Your task to perform on an android device: Empty the shopping cart on ebay.com. Add "jbl flip 4" to the cart on ebay.com, then select checkout. Image 0: 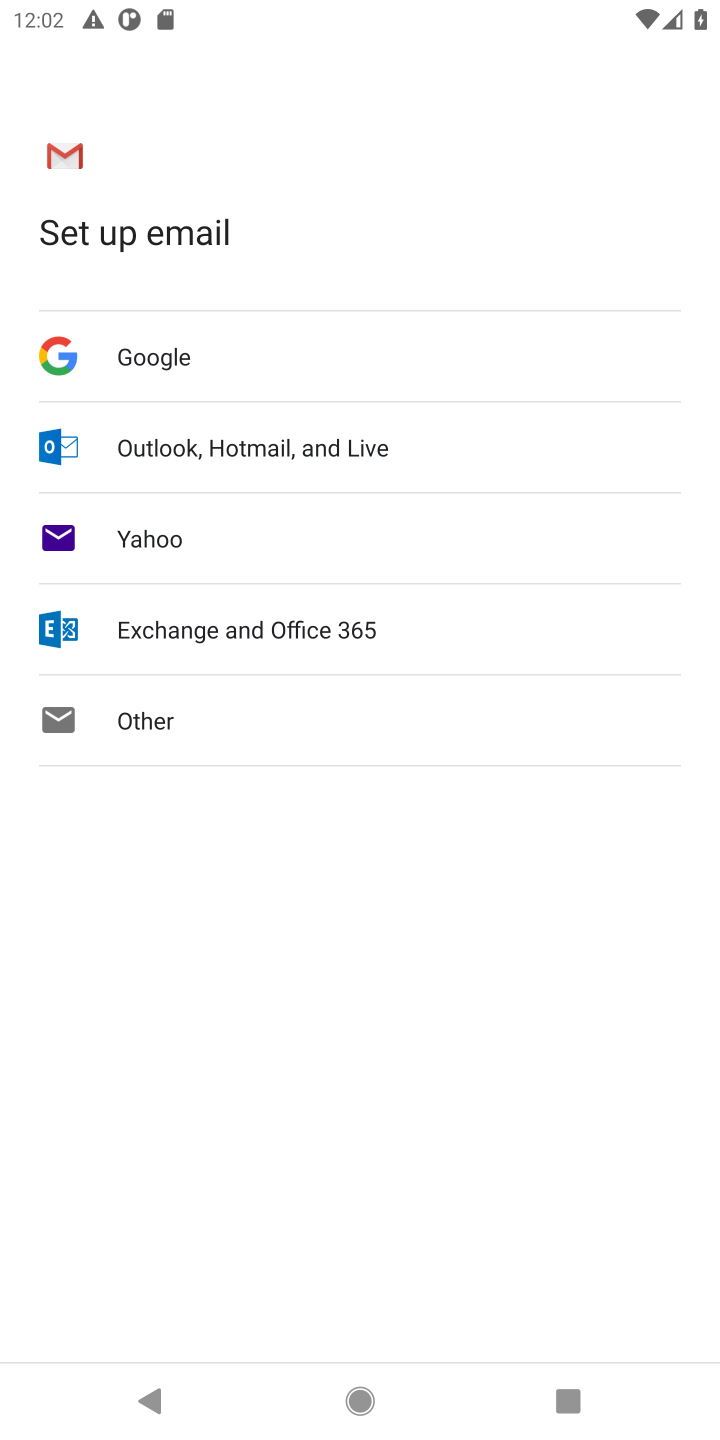
Step 0: press home button
Your task to perform on an android device: Empty the shopping cart on ebay.com. Add "jbl flip 4" to the cart on ebay.com, then select checkout. Image 1: 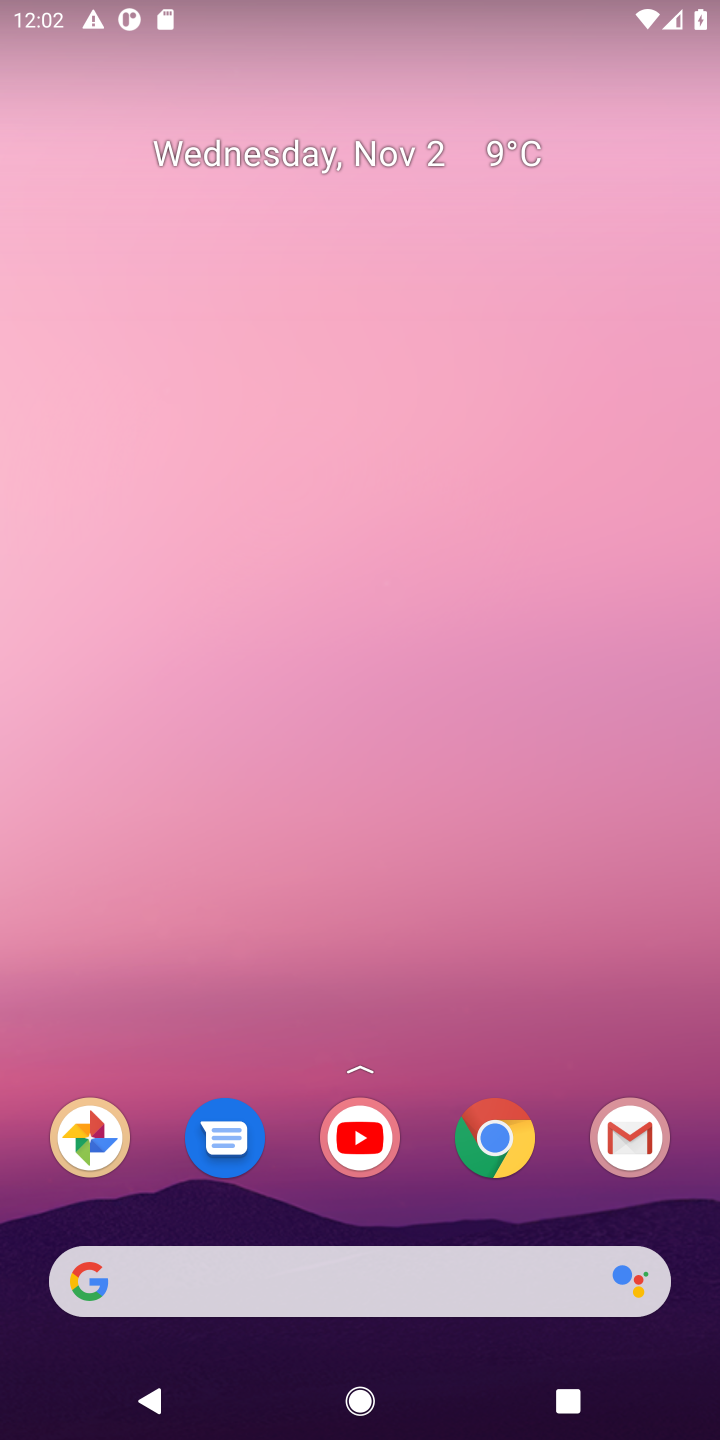
Step 1: click (315, 1275)
Your task to perform on an android device: Empty the shopping cart on ebay.com. Add "jbl flip 4" to the cart on ebay.com, then select checkout. Image 2: 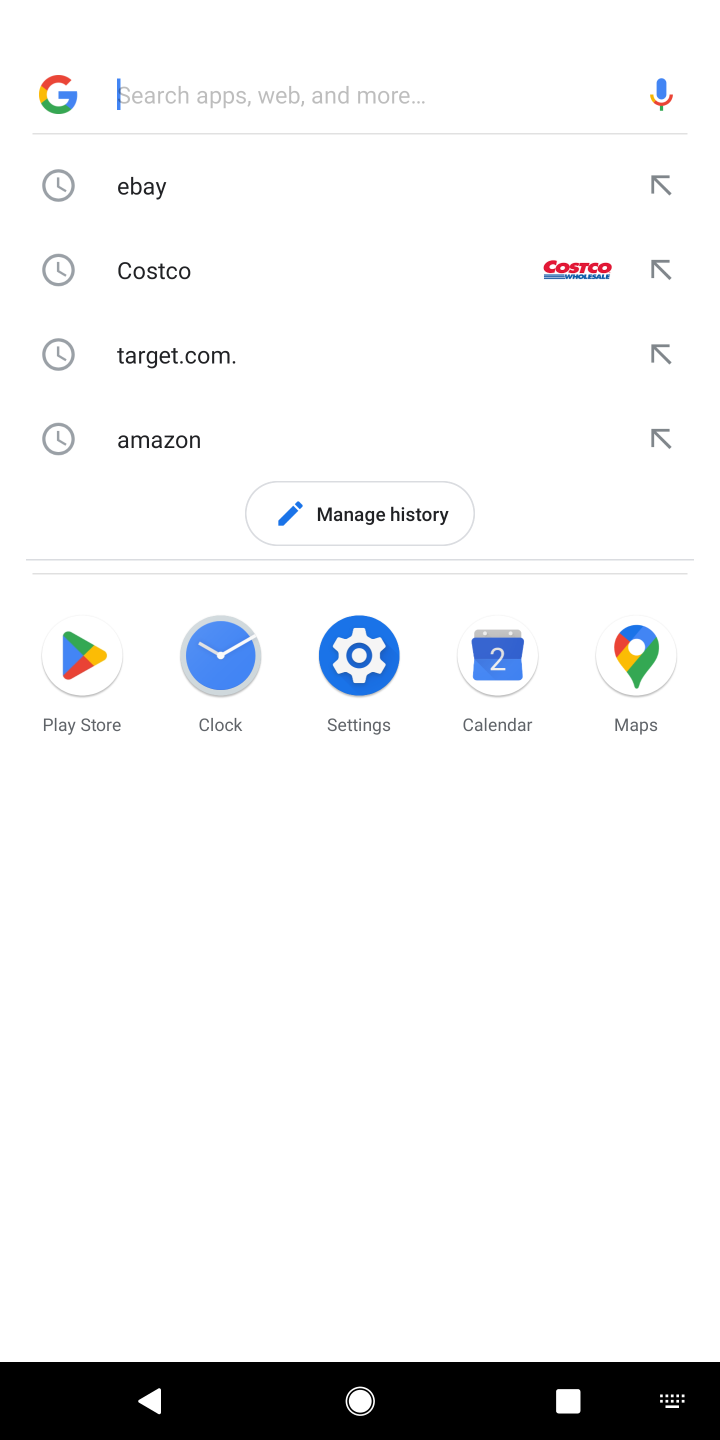
Step 2: click (143, 196)
Your task to perform on an android device: Empty the shopping cart on ebay.com. Add "jbl flip 4" to the cart on ebay.com, then select checkout. Image 3: 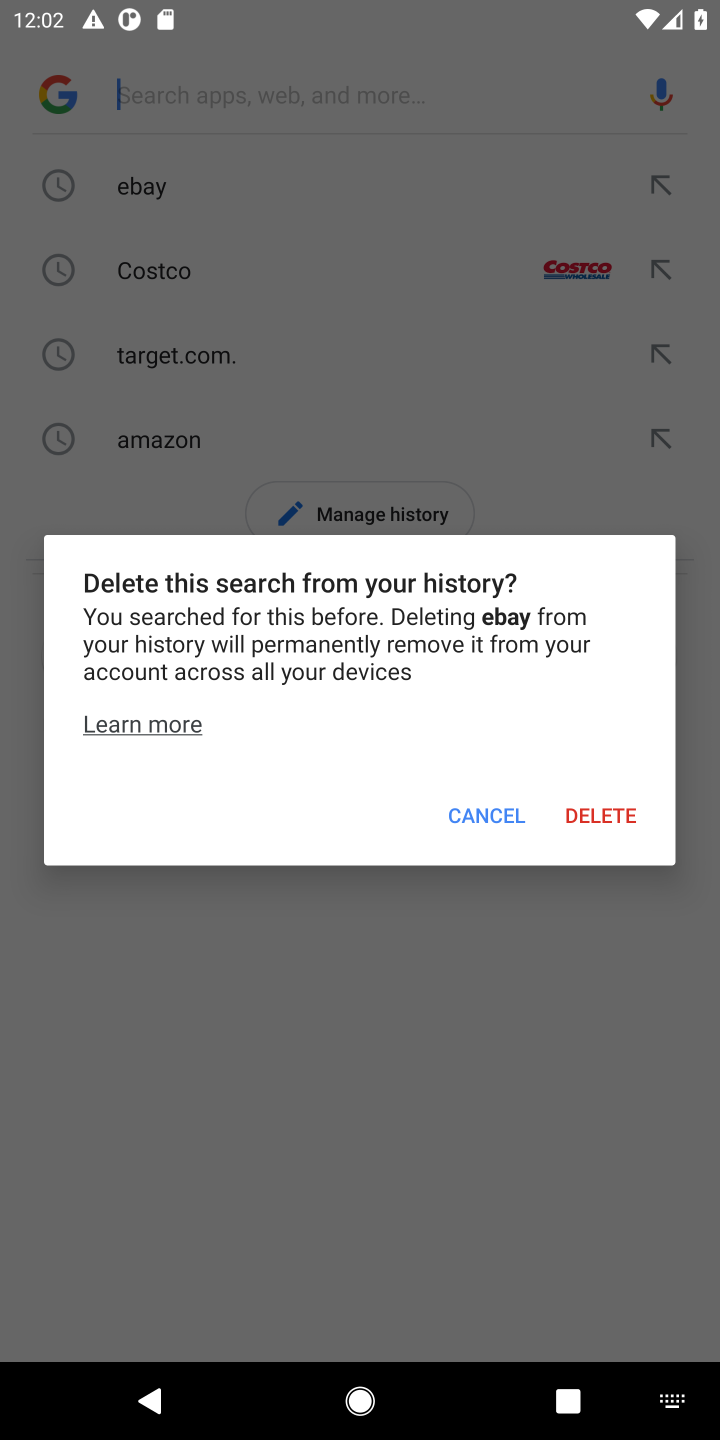
Step 3: click (476, 812)
Your task to perform on an android device: Empty the shopping cart on ebay.com. Add "jbl flip 4" to the cart on ebay.com, then select checkout. Image 4: 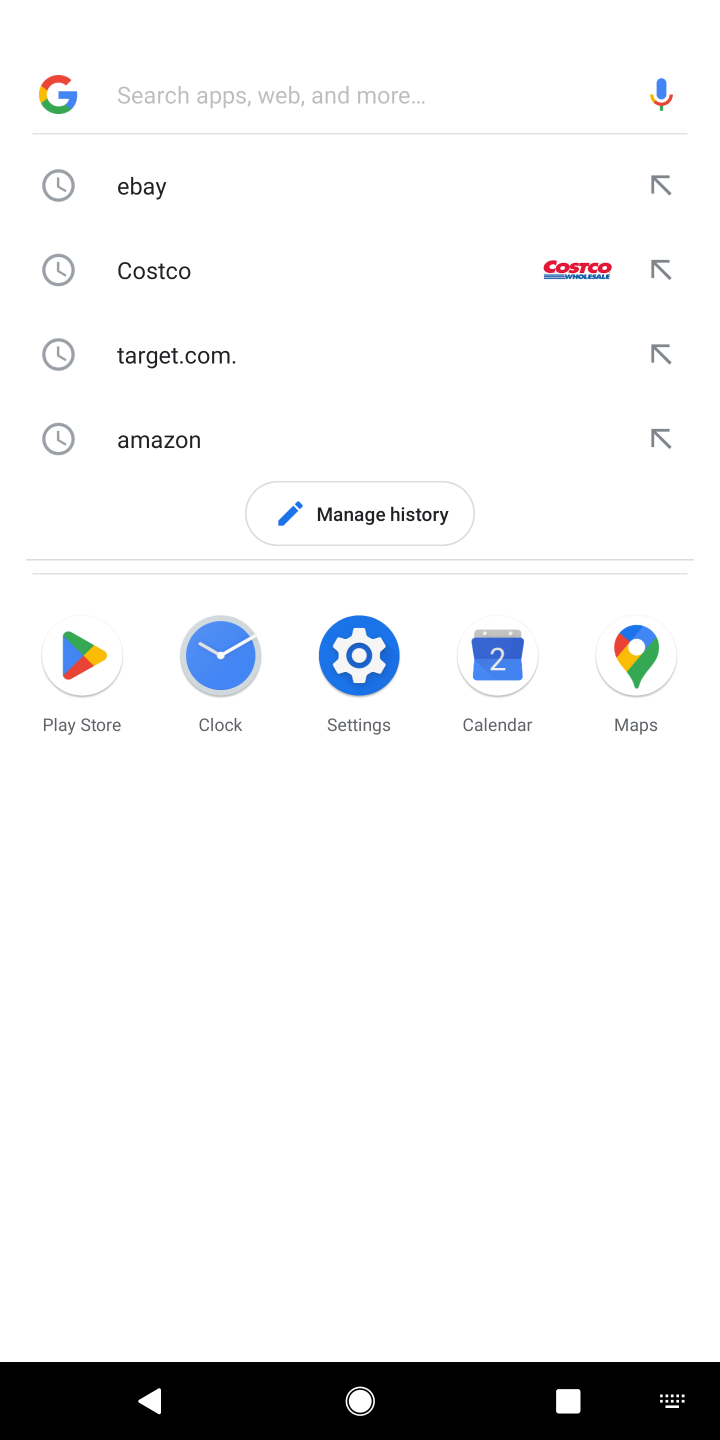
Step 4: click (141, 190)
Your task to perform on an android device: Empty the shopping cart on ebay.com. Add "jbl flip 4" to the cart on ebay.com, then select checkout. Image 5: 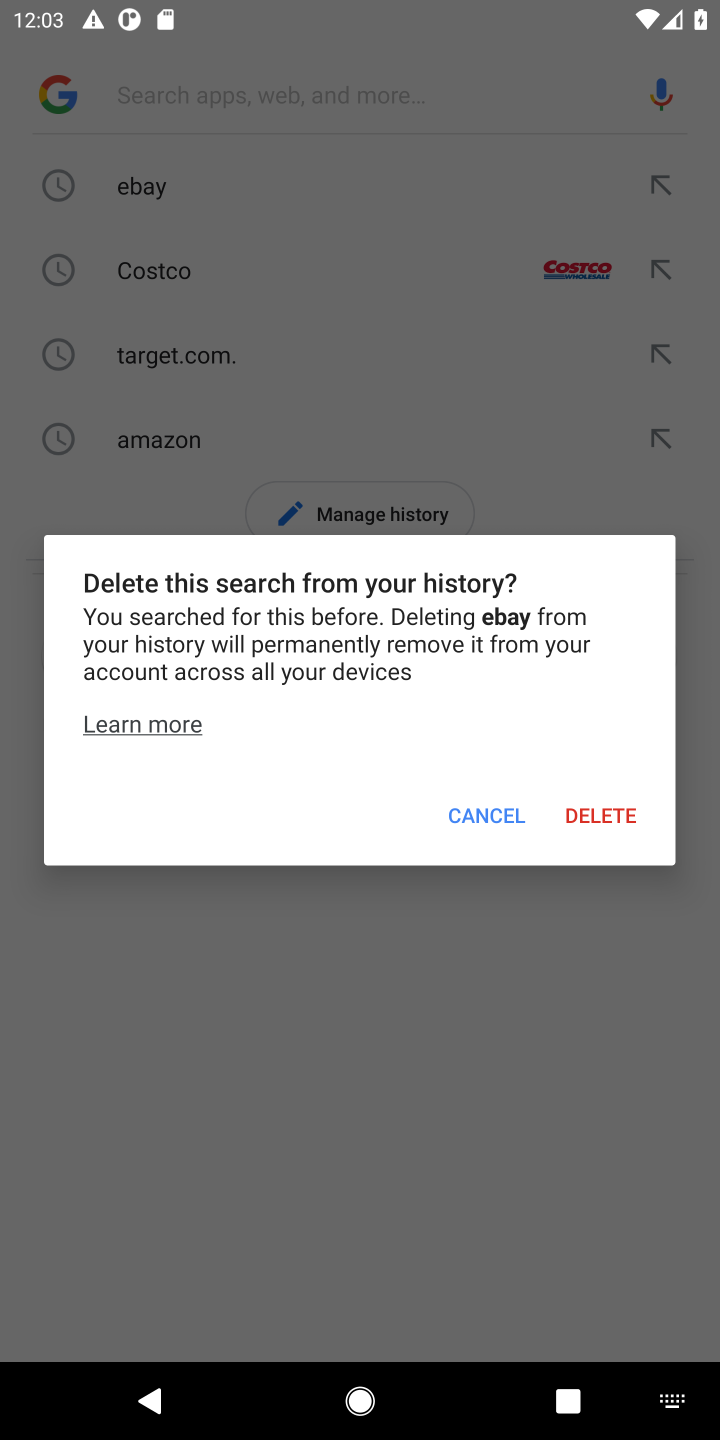
Step 5: click (482, 820)
Your task to perform on an android device: Empty the shopping cart on ebay.com. Add "jbl flip 4" to the cart on ebay.com, then select checkout. Image 6: 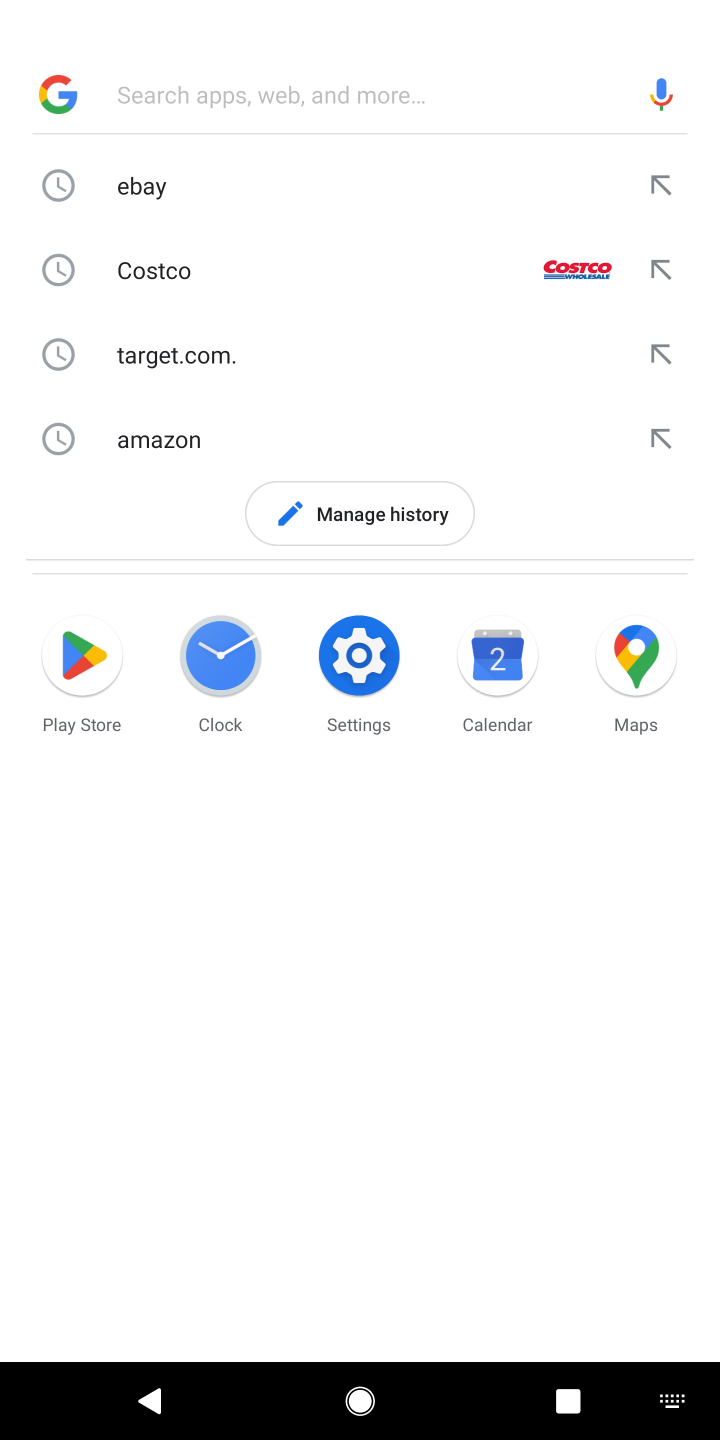
Step 6: click (170, 195)
Your task to perform on an android device: Empty the shopping cart on ebay.com. Add "jbl flip 4" to the cart on ebay.com, then select checkout. Image 7: 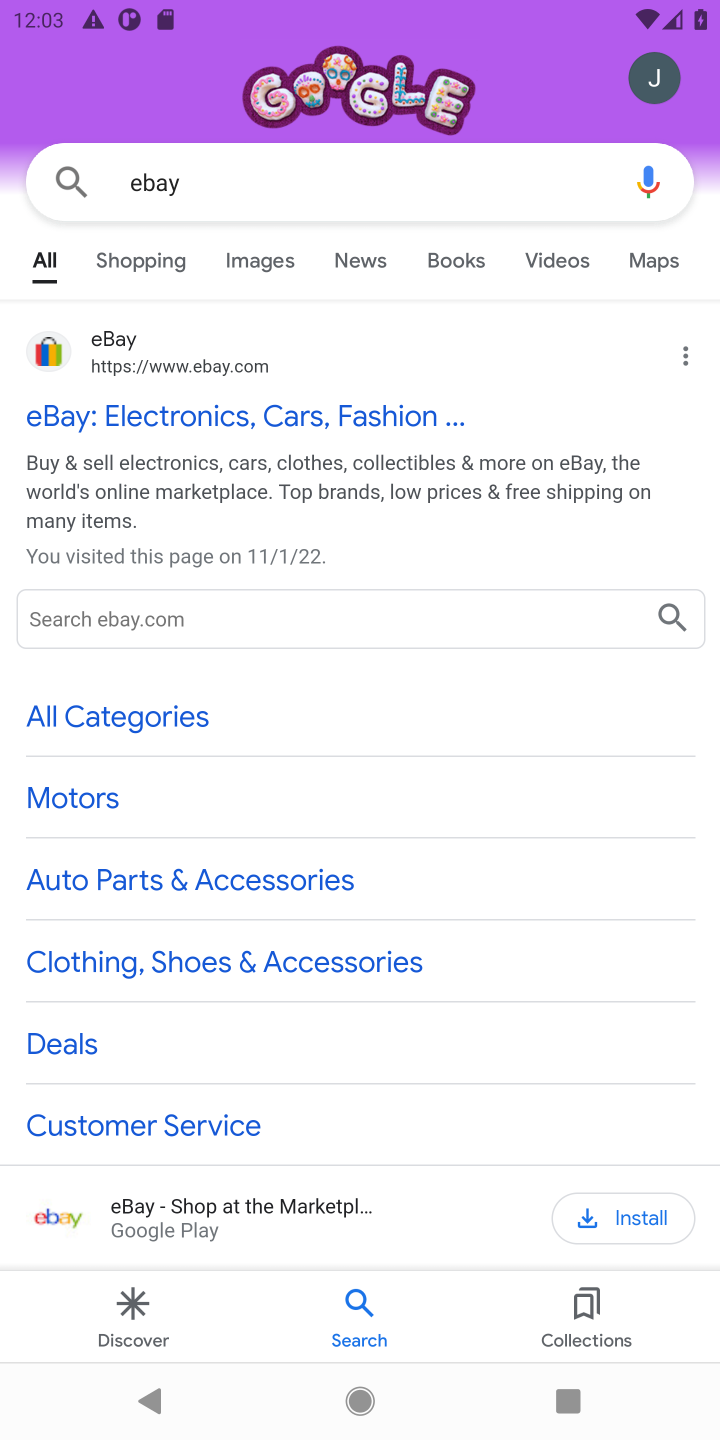
Step 7: click (103, 341)
Your task to perform on an android device: Empty the shopping cart on ebay.com. Add "jbl flip 4" to the cart on ebay.com, then select checkout. Image 8: 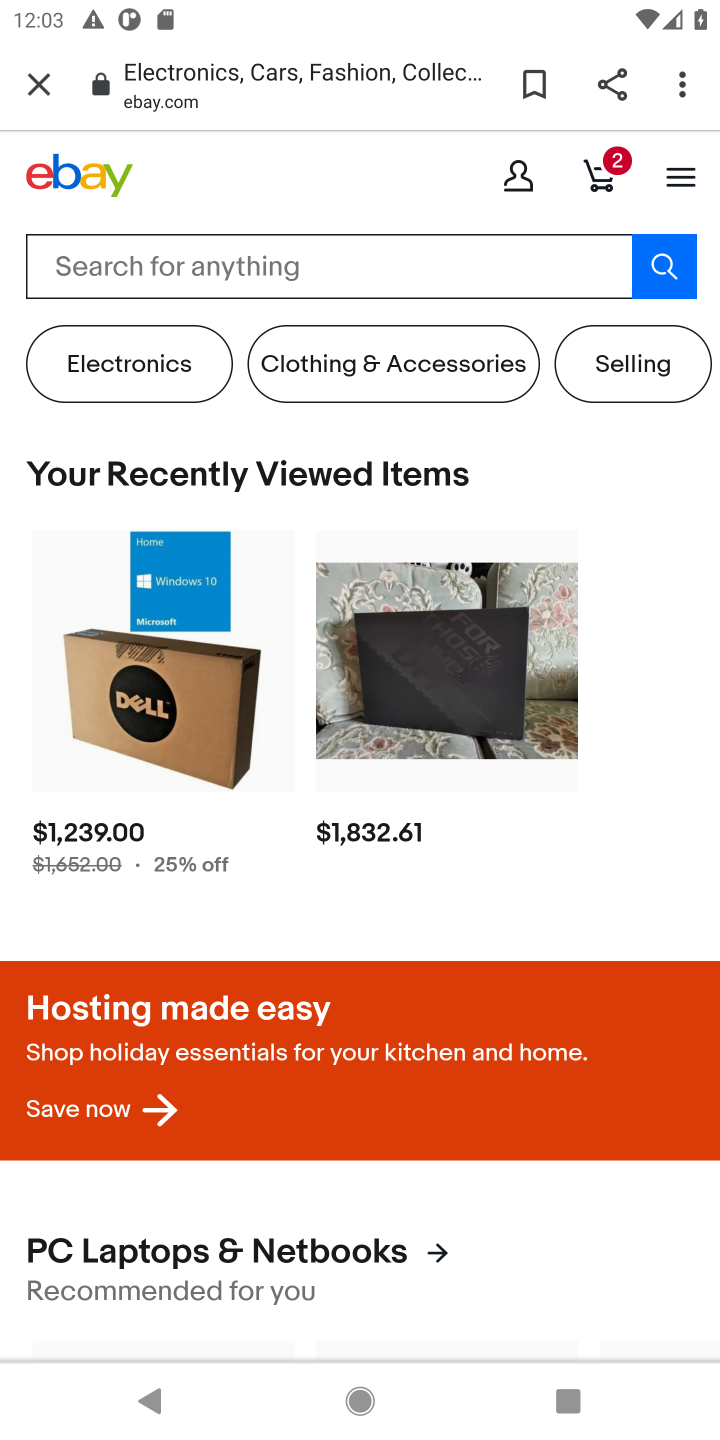
Step 8: click (266, 259)
Your task to perform on an android device: Empty the shopping cart on ebay.com. Add "jbl flip 4" to the cart on ebay.com, then select checkout. Image 9: 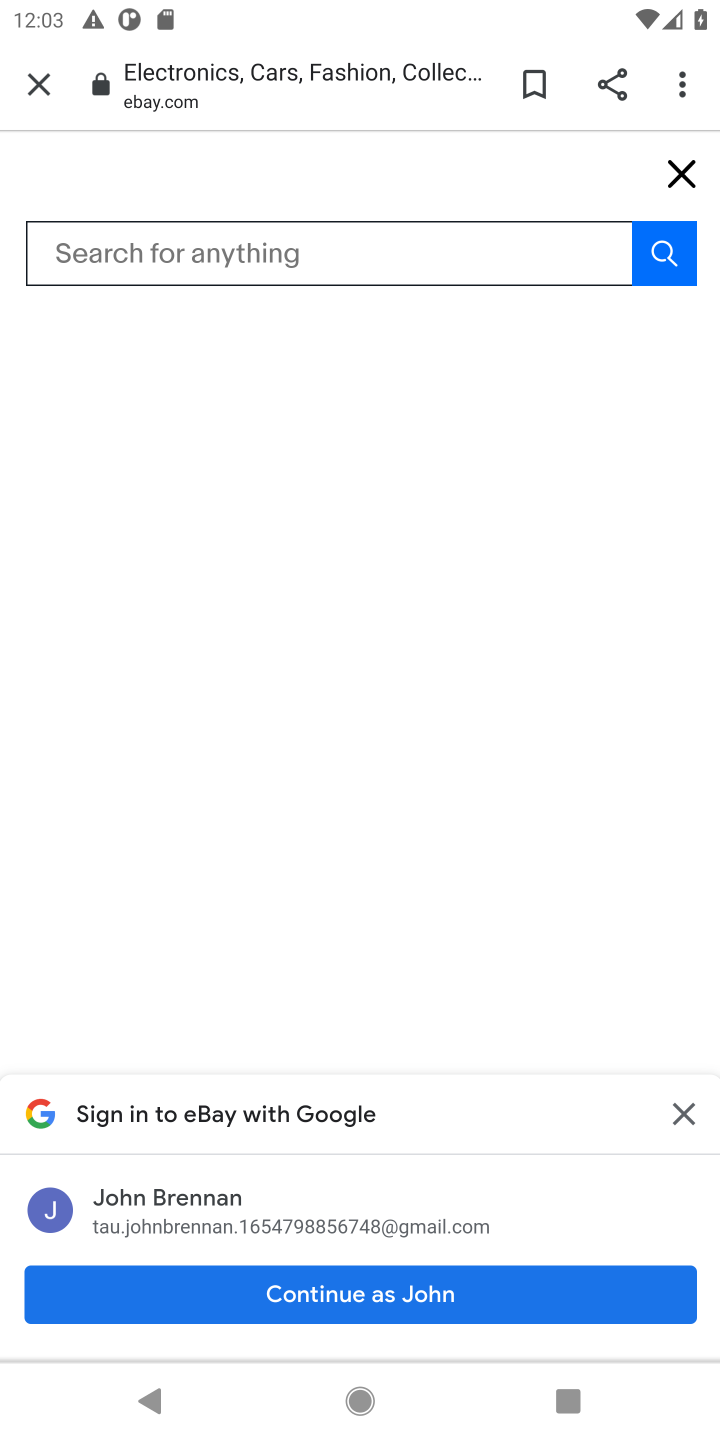
Step 9: click (329, 259)
Your task to perform on an android device: Empty the shopping cart on ebay.com. Add "jbl flip 4" to the cart on ebay.com, then select checkout. Image 10: 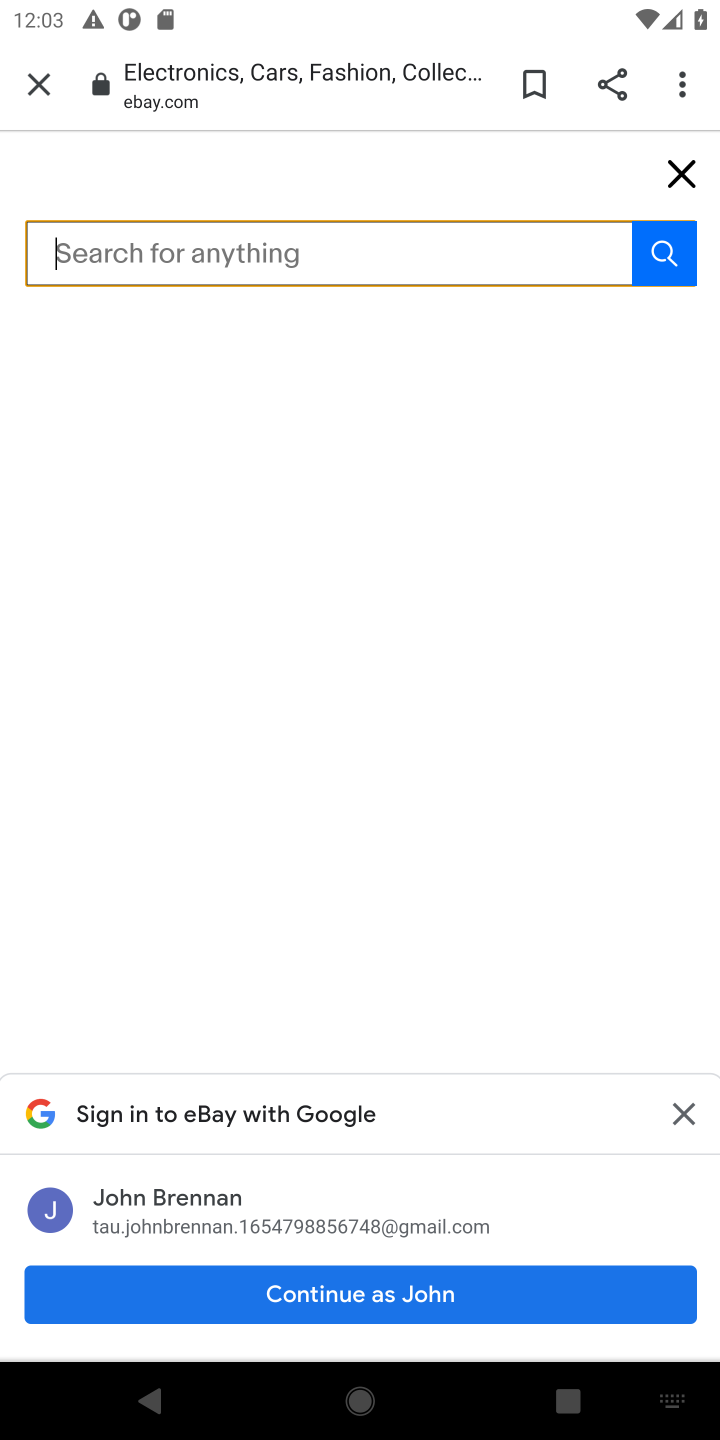
Step 10: click (480, 1305)
Your task to perform on an android device: Empty the shopping cart on ebay.com. Add "jbl flip 4" to the cart on ebay.com, then select checkout. Image 11: 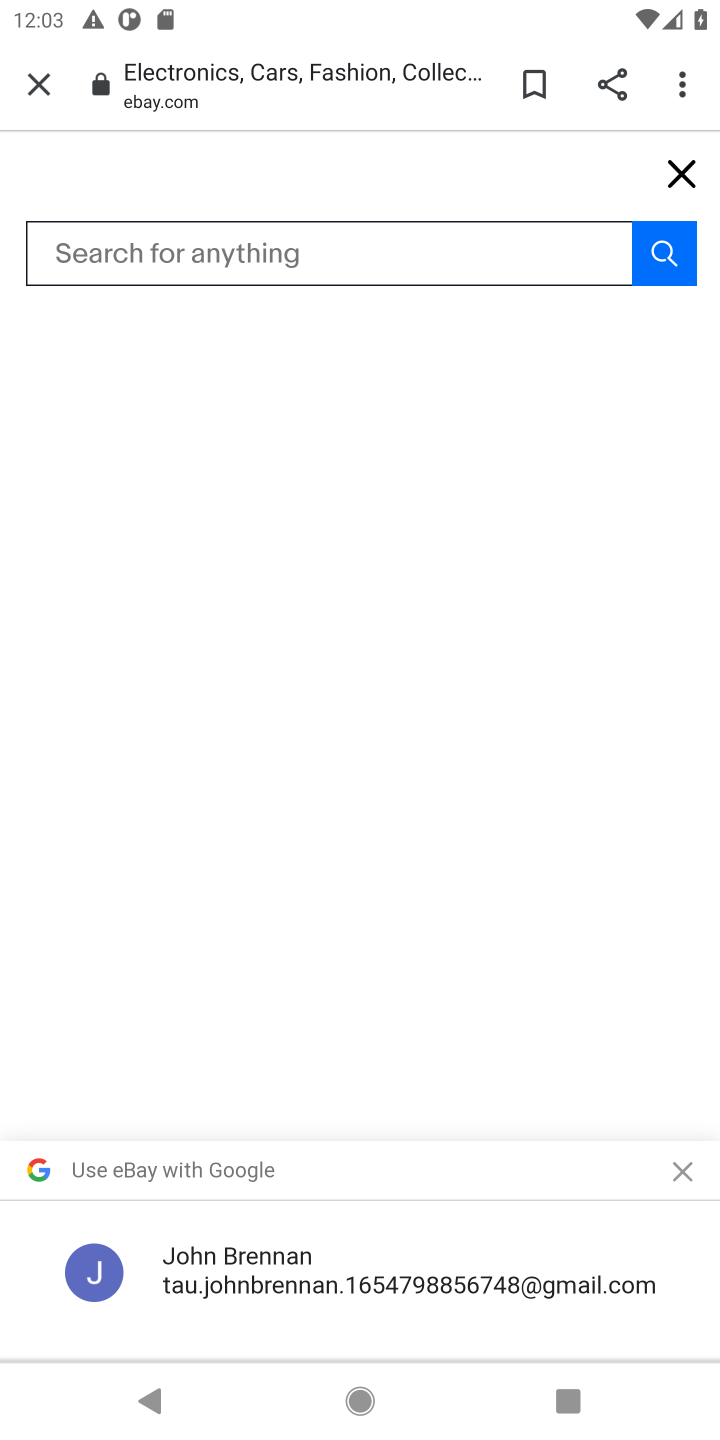
Step 11: click (243, 257)
Your task to perform on an android device: Empty the shopping cart on ebay.com. Add "jbl flip 4" to the cart on ebay.com, then select checkout. Image 12: 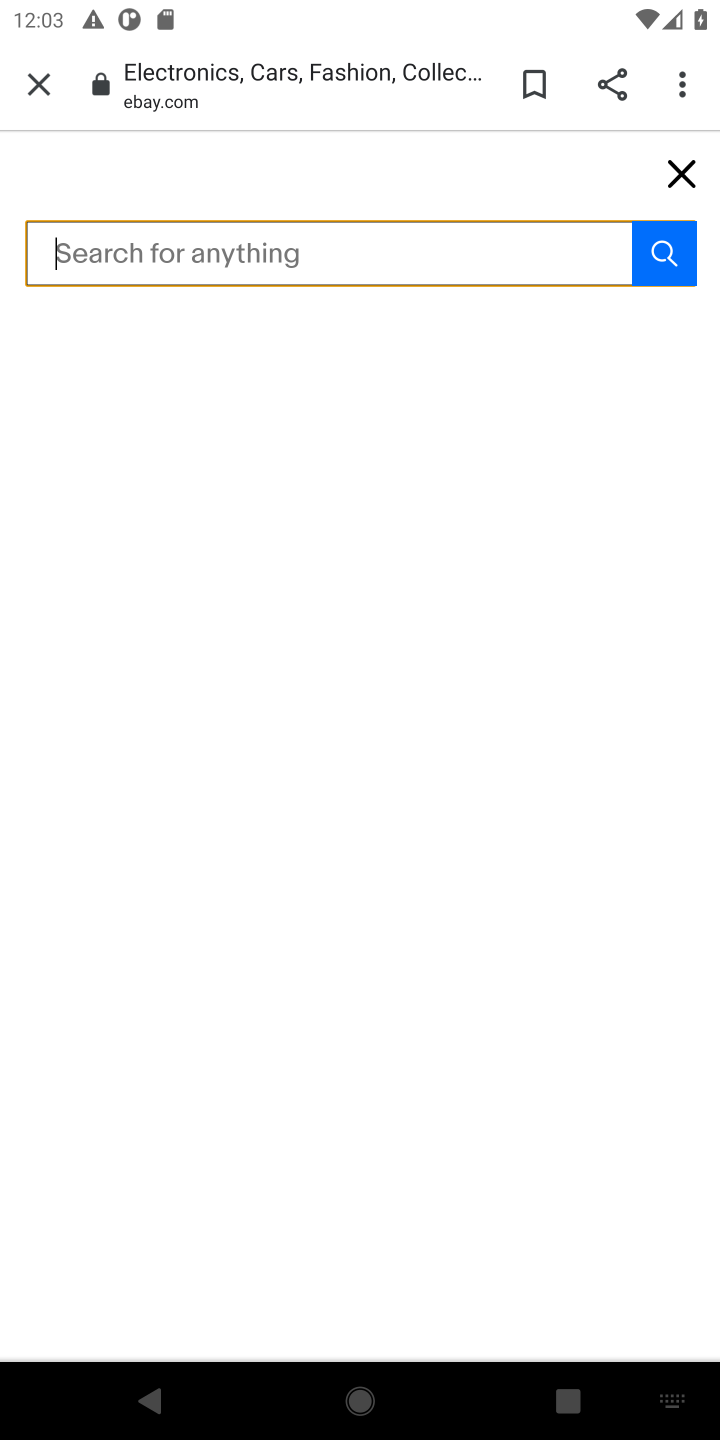
Step 12: type "jbl flip 4"
Your task to perform on an android device: Empty the shopping cart on ebay.com. Add "jbl flip 4" to the cart on ebay.com, then select checkout. Image 13: 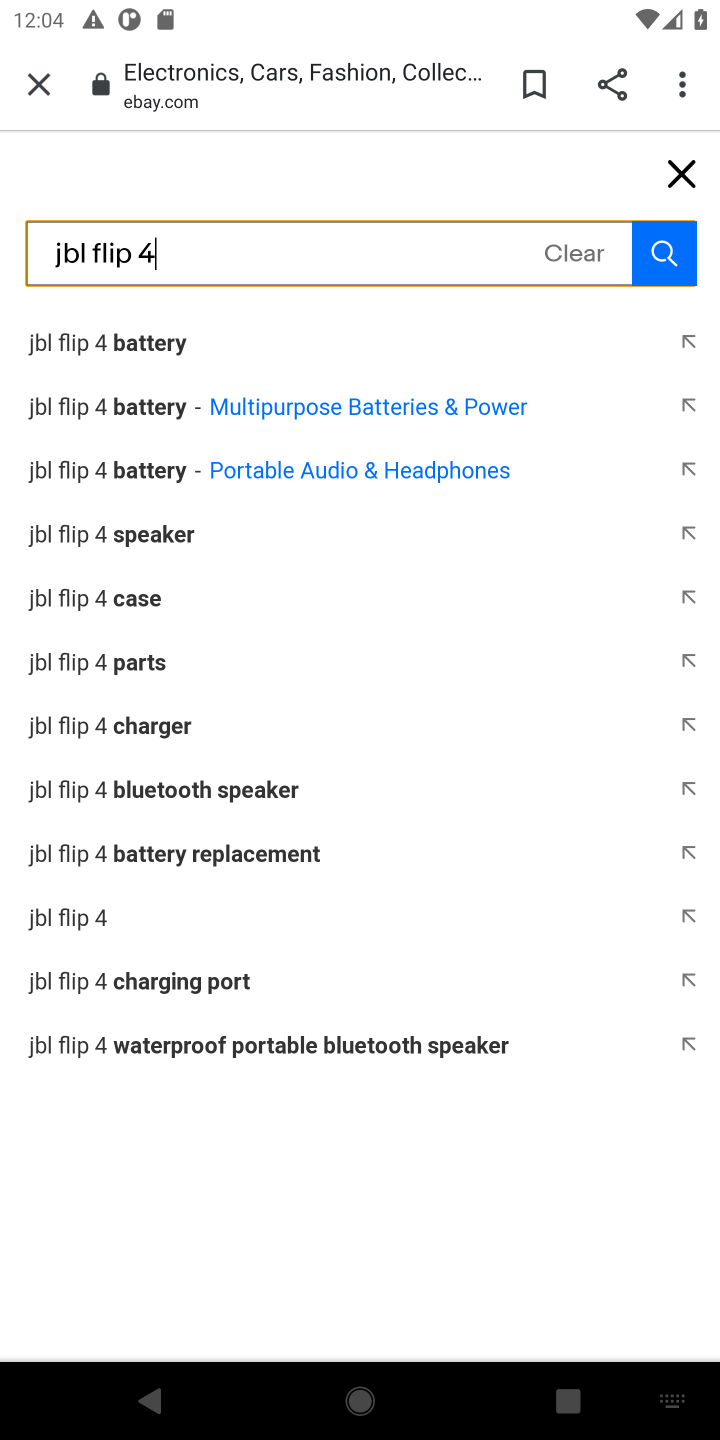
Step 13: click (665, 258)
Your task to perform on an android device: Empty the shopping cart on ebay.com. Add "jbl flip 4" to the cart on ebay.com, then select checkout. Image 14: 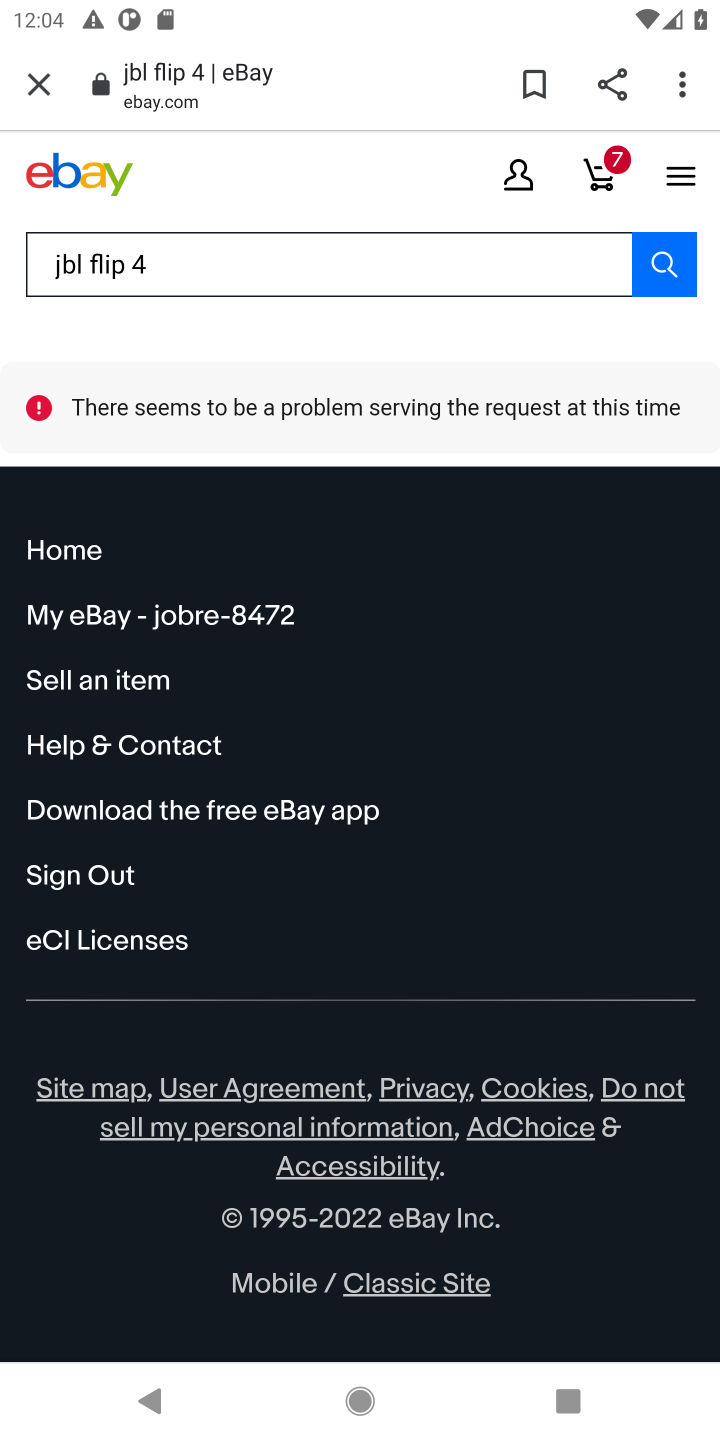
Step 14: click (656, 274)
Your task to perform on an android device: Empty the shopping cart on ebay.com. Add "jbl flip 4" to the cart on ebay.com, then select checkout. Image 15: 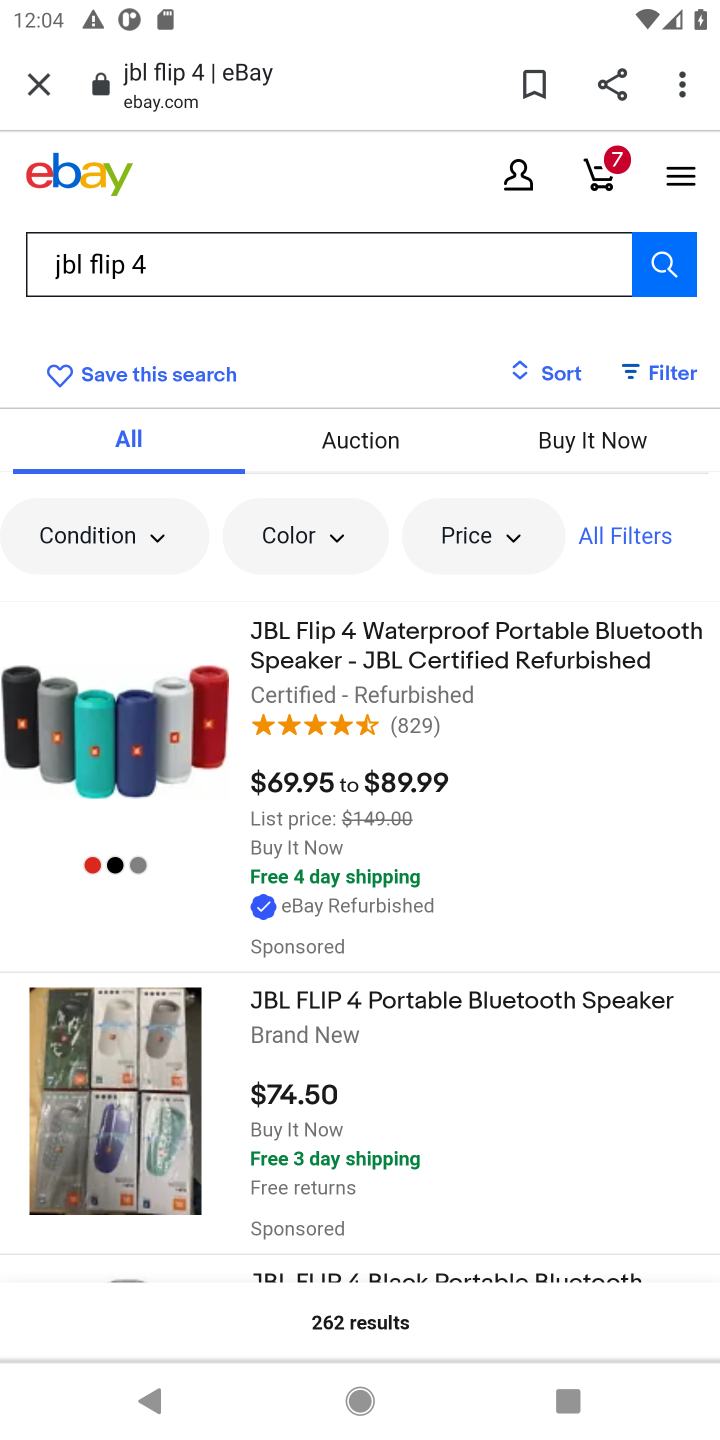
Step 15: click (435, 655)
Your task to perform on an android device: Empty the shopping cart on ebay.com. Add "jbl flip 4" to the cart on ebay.com, then select checkout. Image 16: 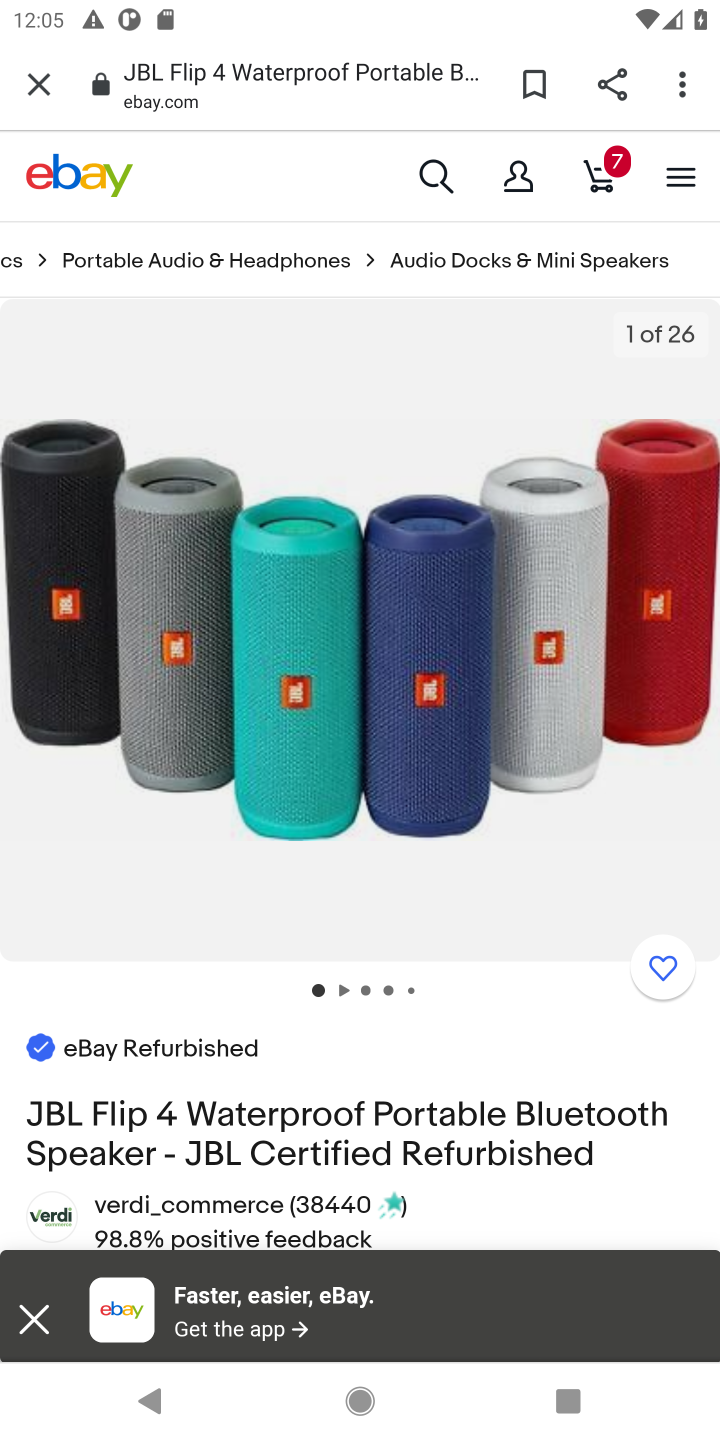
Step 16: drag from (476, 1013) to (465, 453)
Your task to perform on an android device: Empty the shopping cart on ebay.com. Add "jbl flip 4" to the cart on ebay.com, then select checkout. Image 17: 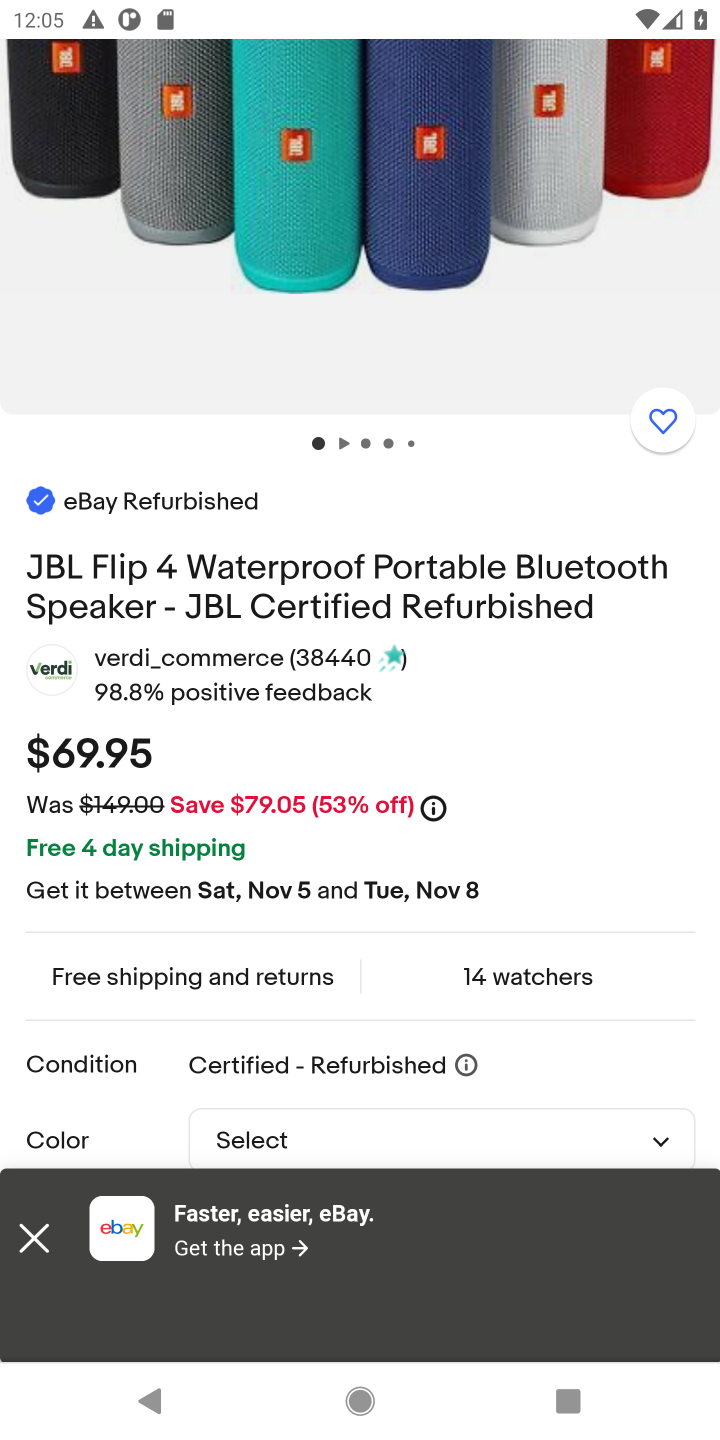
Step 17: drag from (513, 1042) to (489, 566)
Your task to perform on an android device: Empty the shopping cart on ebay.com. Add "jbl flip 4" to the cart on ebay.com, then select checkout. Image 18: 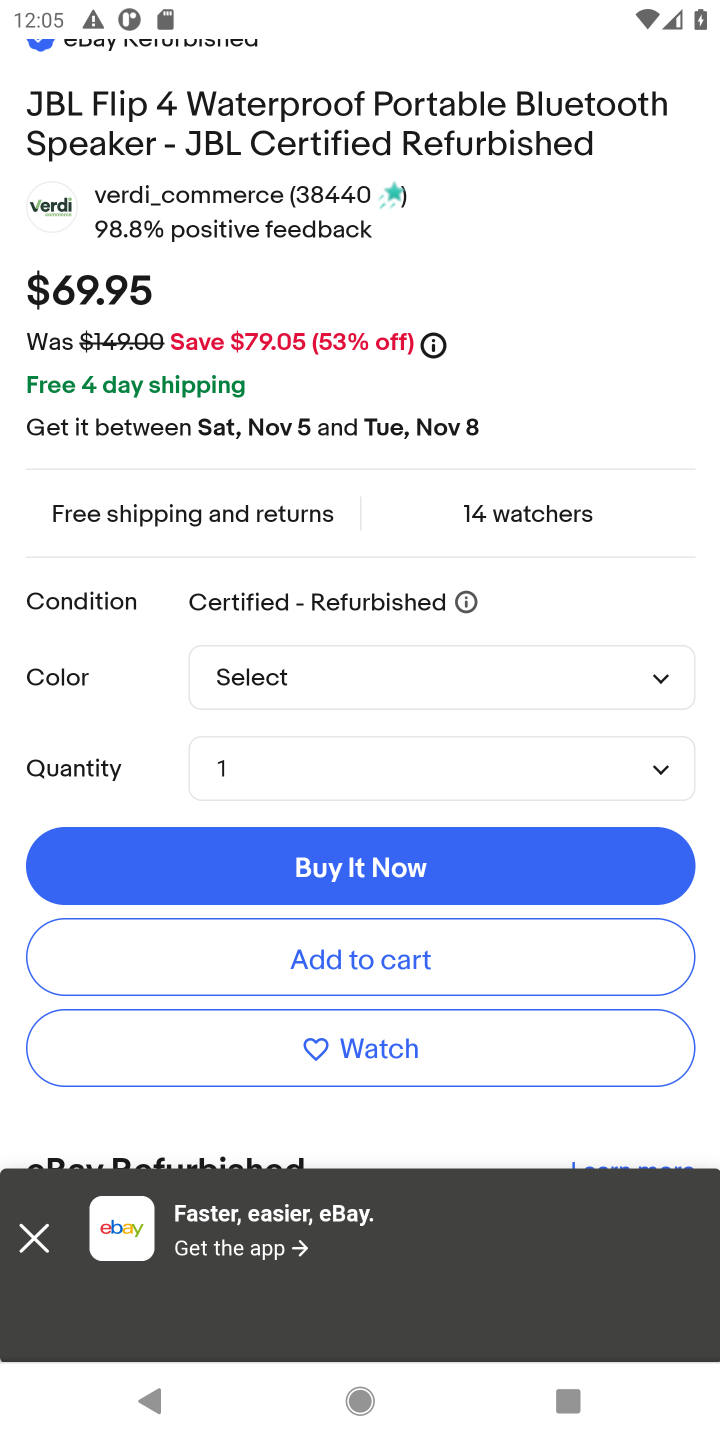
Step 18: click (412, 967)
Your task to perform on an android device: Empty the shopping cart on ebay.com. Add "jbl flip 4" to the cart on ebay.com, then select checkout. Image 19: 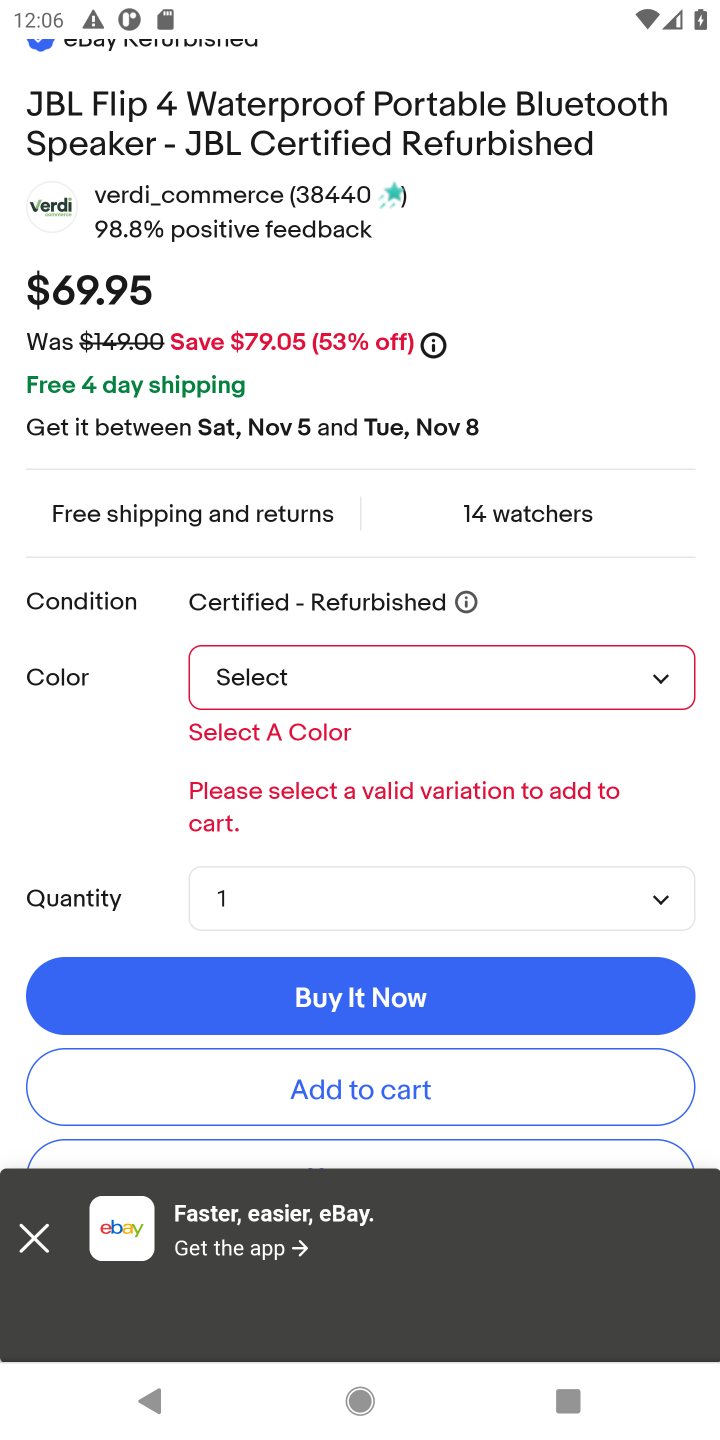
Step 19: click (410, 1078)
Your task to perform on an android device: Empty the shopping cart on ebay.com. Add "jbl flip 4" to the cart on ebay.com, then select checkout. Image 20: 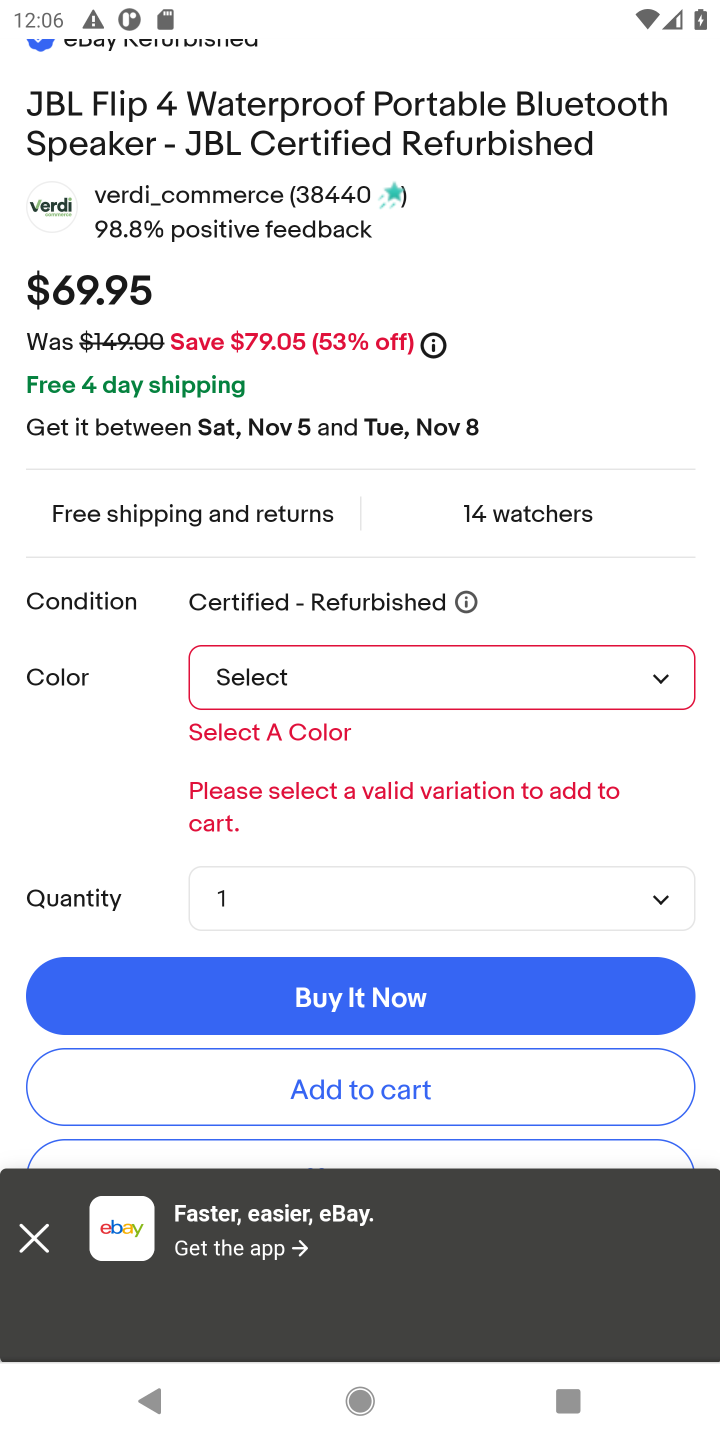
Step 20: task complete